Your task to perform on an android device: Open location settings Image 0: 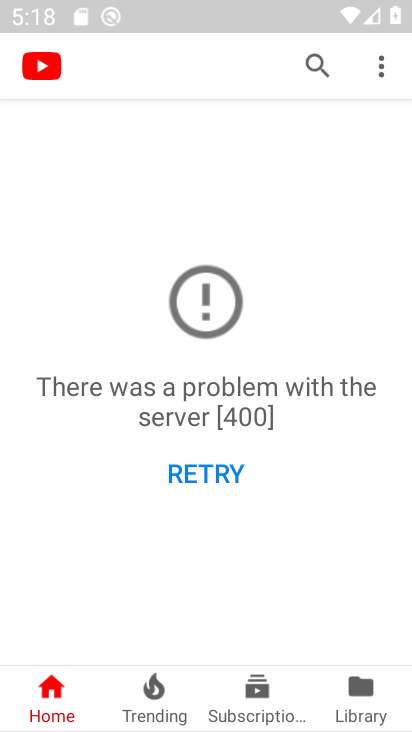
Step 0: press home button
Your task to perform on an android device: Open location settings Image 1: 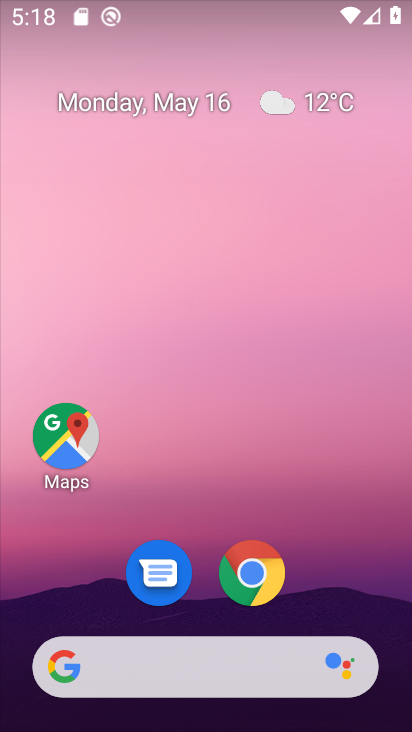
Step 1: drag from (170, 608) to (312, 70)
Your task to perform on an android device: Open location settings Image 2: 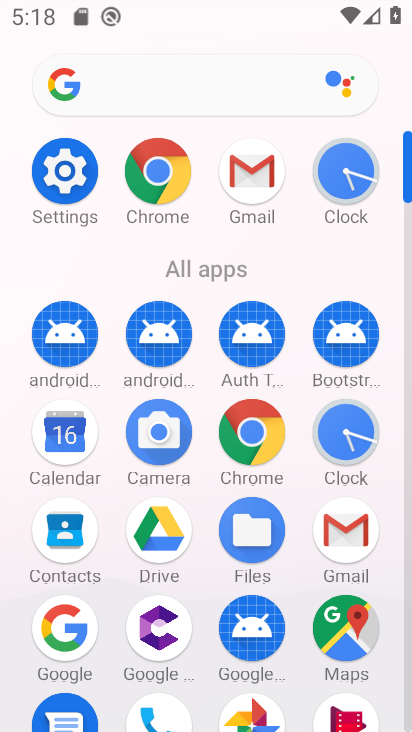
Step 2: click (60, 166)
Your task to perform on an android device: Open location settings Image 3: 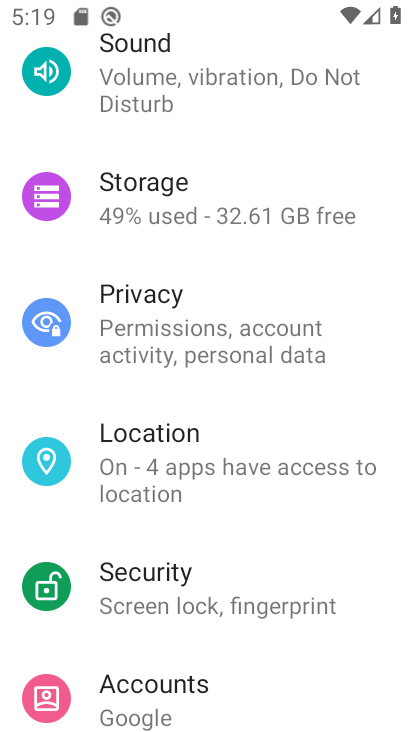
Step 3: click (177, 452)
Your task to perform on an android device: Open location settings Image 4: 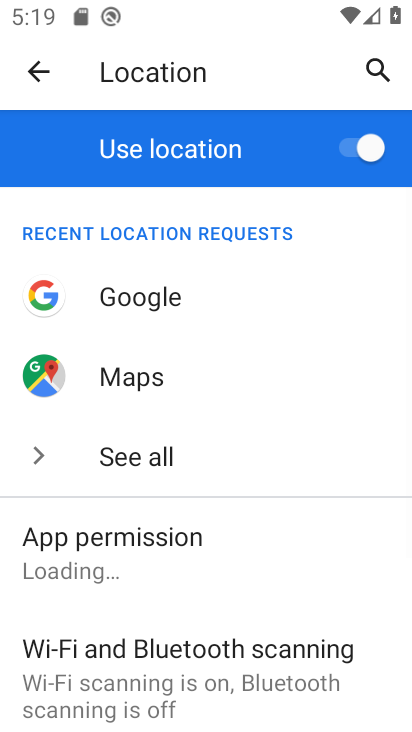
Step 4: task complete